Your task to perform on an android device: What's the weather today? Image 0: 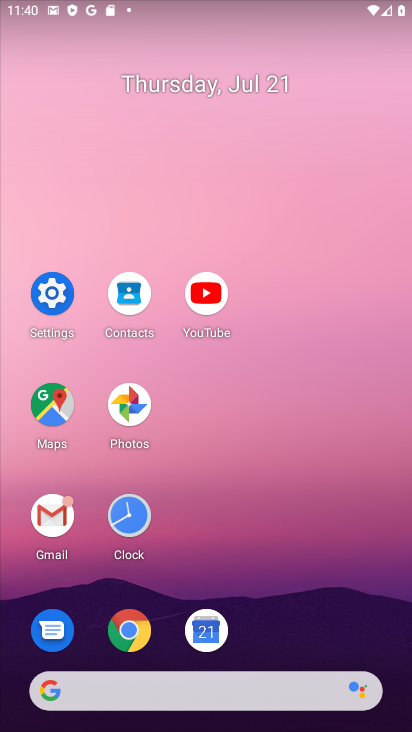
Step 0: click (172, 690)
Your task to perform on an android device: What's the weather today? Image 1: 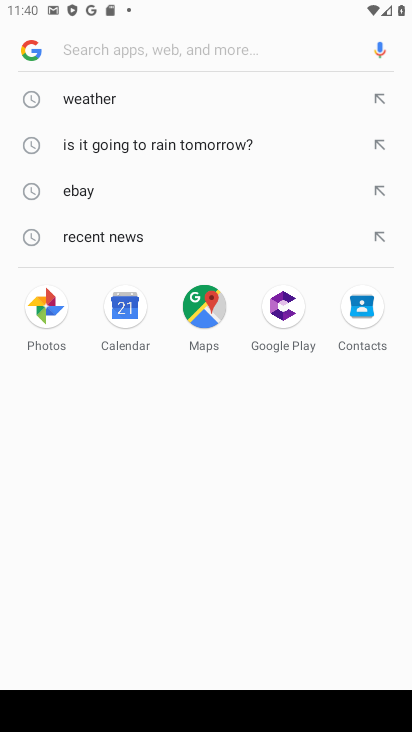
Step 1: click (92, 94)
Your task to perform on an android device: What's the weather today? Image 2: 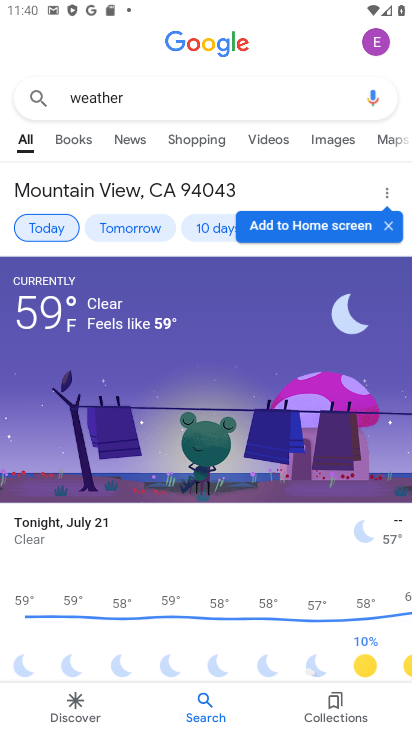
Step 2: task complete